Your task to perform on an android device: change keyboard looks Image 0: 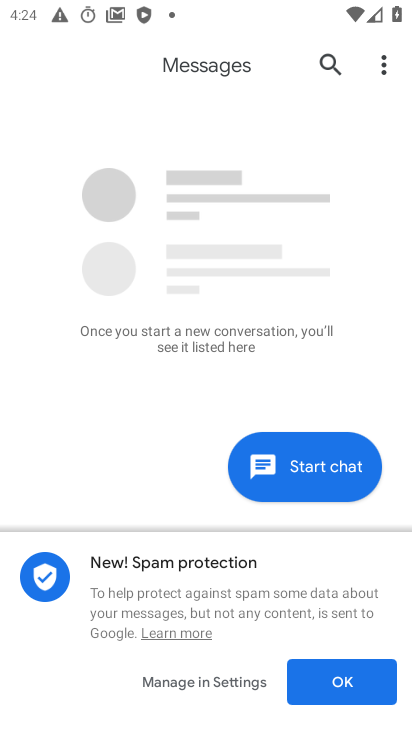
Step 0: press home button
Your task to perform on an android device: change keyboard looks Image 1: 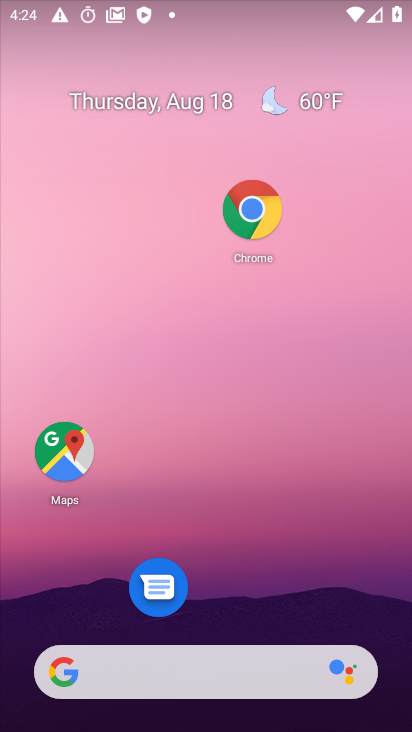
Step 1: drag from (287, 556) to (328, 55)
Your task to perform on an android device: change keyboard looks Image 2: 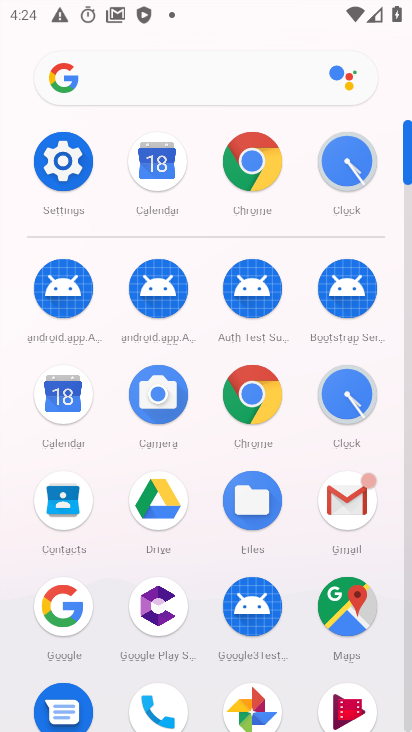
Step 2: drag from (205, 613) to (208, 159)
Your task to perform on an android device: change keyboard looks Image 3: 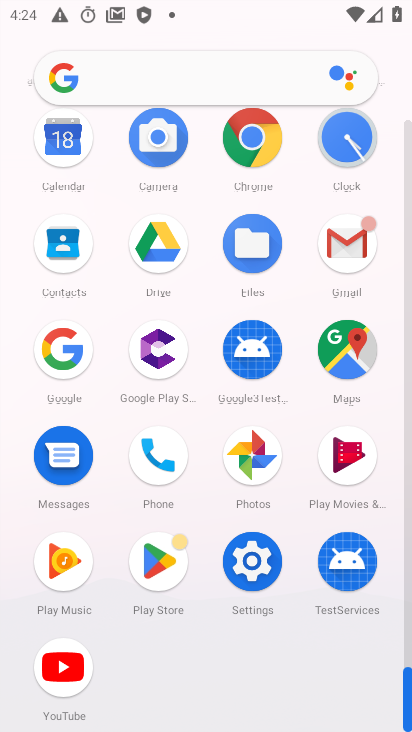
Step 3: click (258, 547)
Your task to perform on an android device: change keyboard looks Image 4: 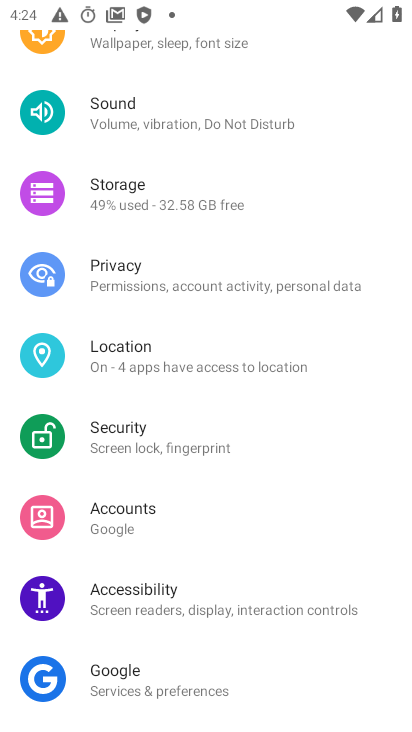
Step 4: drag from (244, 593) to (241, 170)
Your task to perform on an android device: change keyboard looks Image 5: 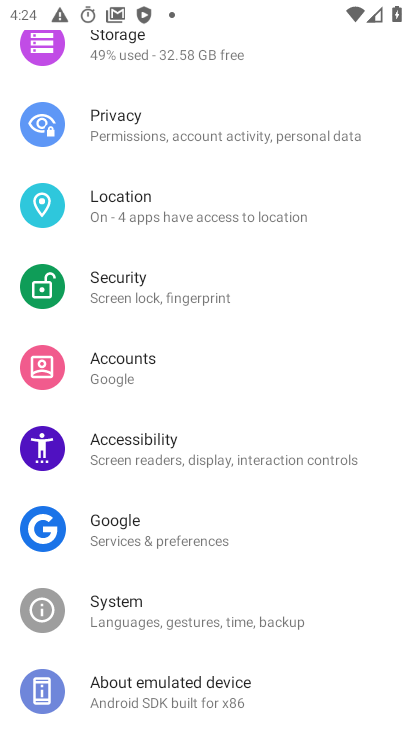
Step 5: click (148, 615)
Your task to perform on an android device: change keyboard looks Image 6: 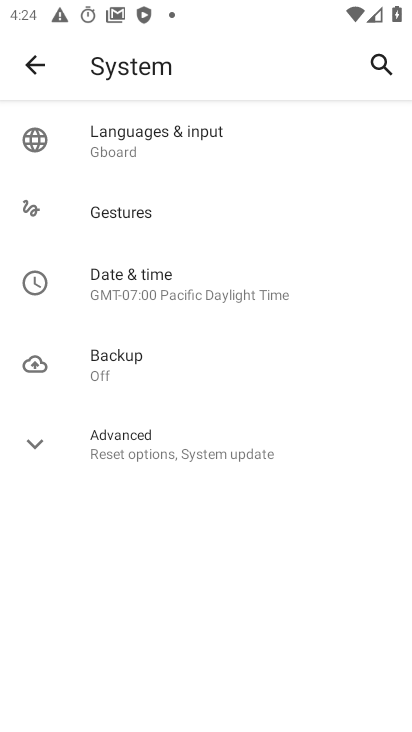
Step 6: click (163, 135)
Your task to perform on an android device: change keyboard looks Image 7: 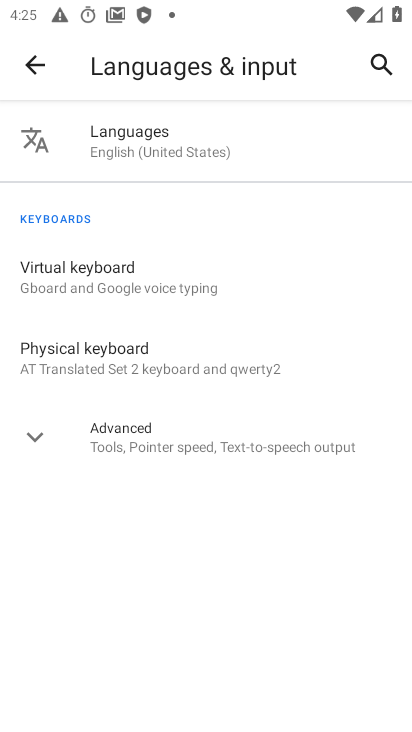
Step 7: click (134, 270)
Your task to perform on an android device: change keyboard looks Image 8: 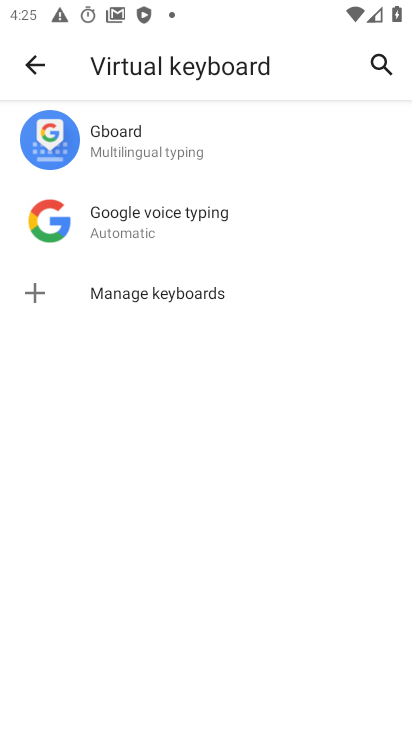
Step 8: click (105, 145)
Your task to perform on an android device: change keyboard looks Image 9: 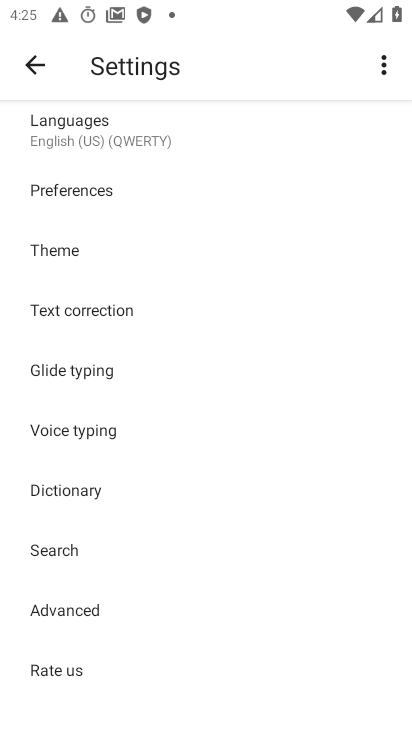
Step 9: click (67, 248)
Your task to perform on an android device: change keyboard looks Image 10: 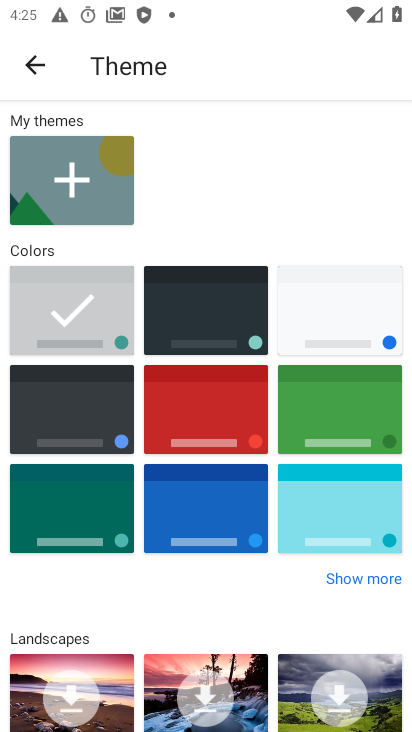
Step 10: click (217, 286)
Your task to perform on an android device: change keyboard looks Image 11: 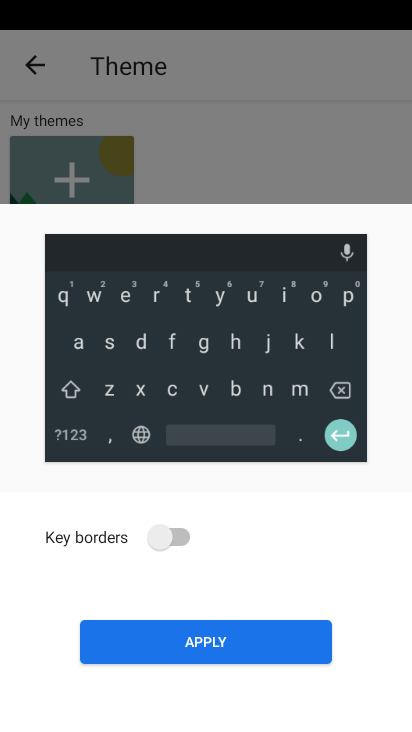
Step 11: click (189, 536)
Your task to perform on an android device: change keyboard looks Image 12: 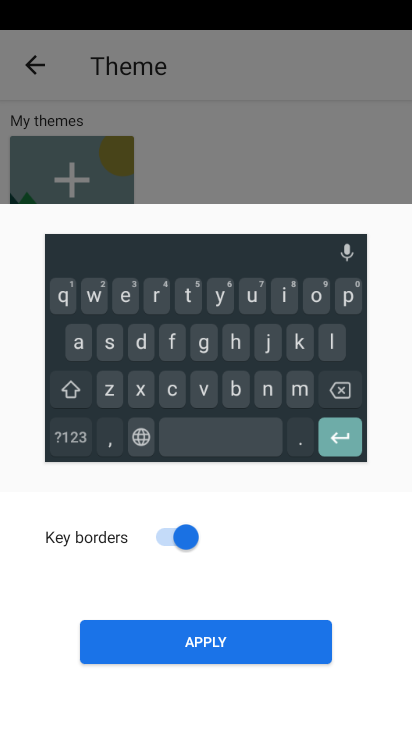
Step 12: click (259, 649)
Your task to perform on an android device: change keyboard looks Image 13: 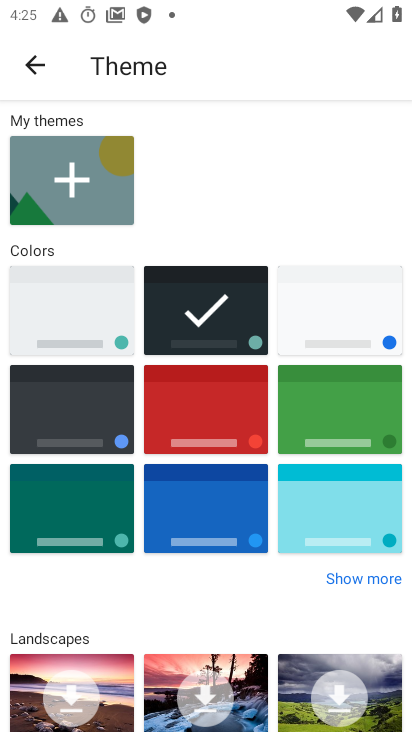
Step 13: task complete